Your task to perform on an android device: Go to display settings Image 0: 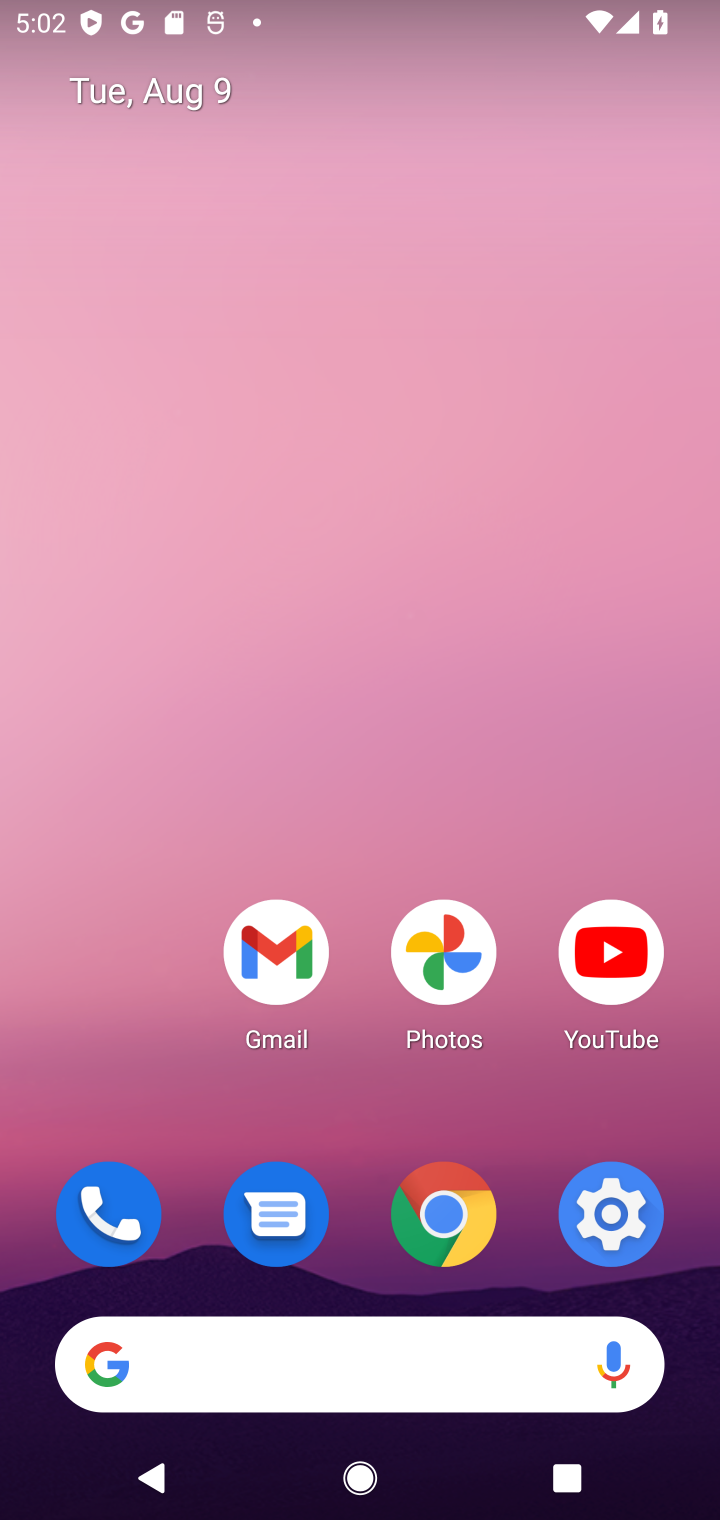
Step 0: drag from (478, 1318) to (375, 340)
Your task to perform on an android device: Go to display settings Image 1: 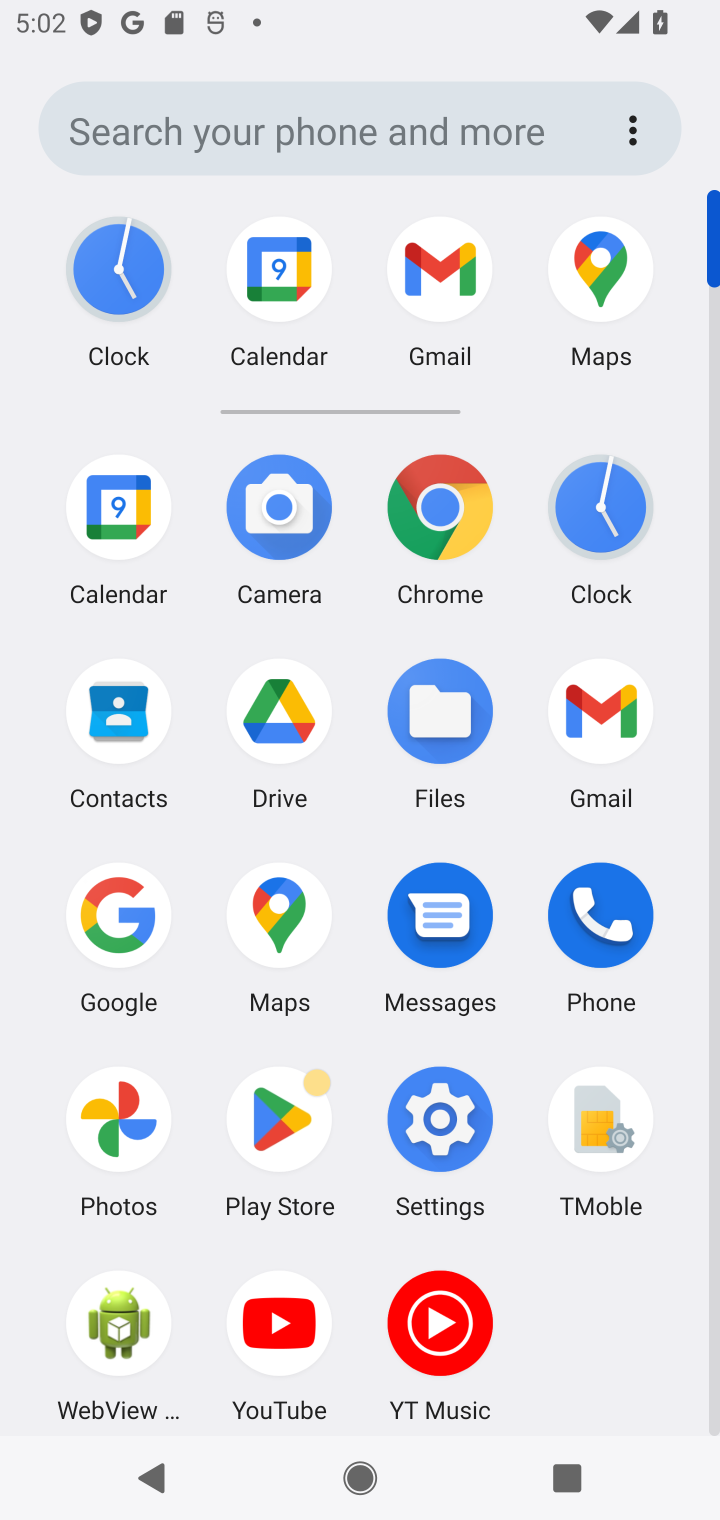
Step 1: click (432, 1098)
Your task to perform on an android device: Go to display settings Image 2: 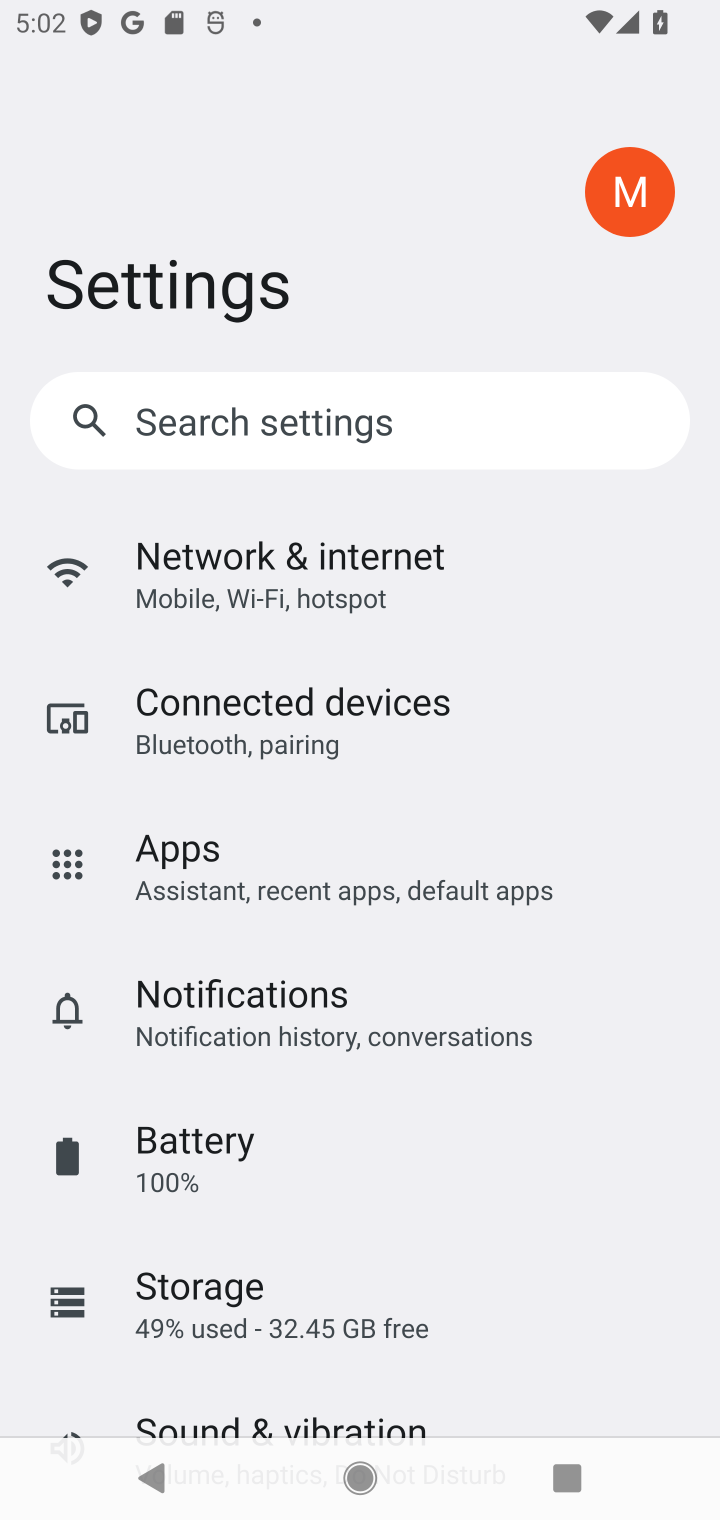
Step 2: click (267, 405)
Your task to perform on an android device: Go to display settings Image 3: 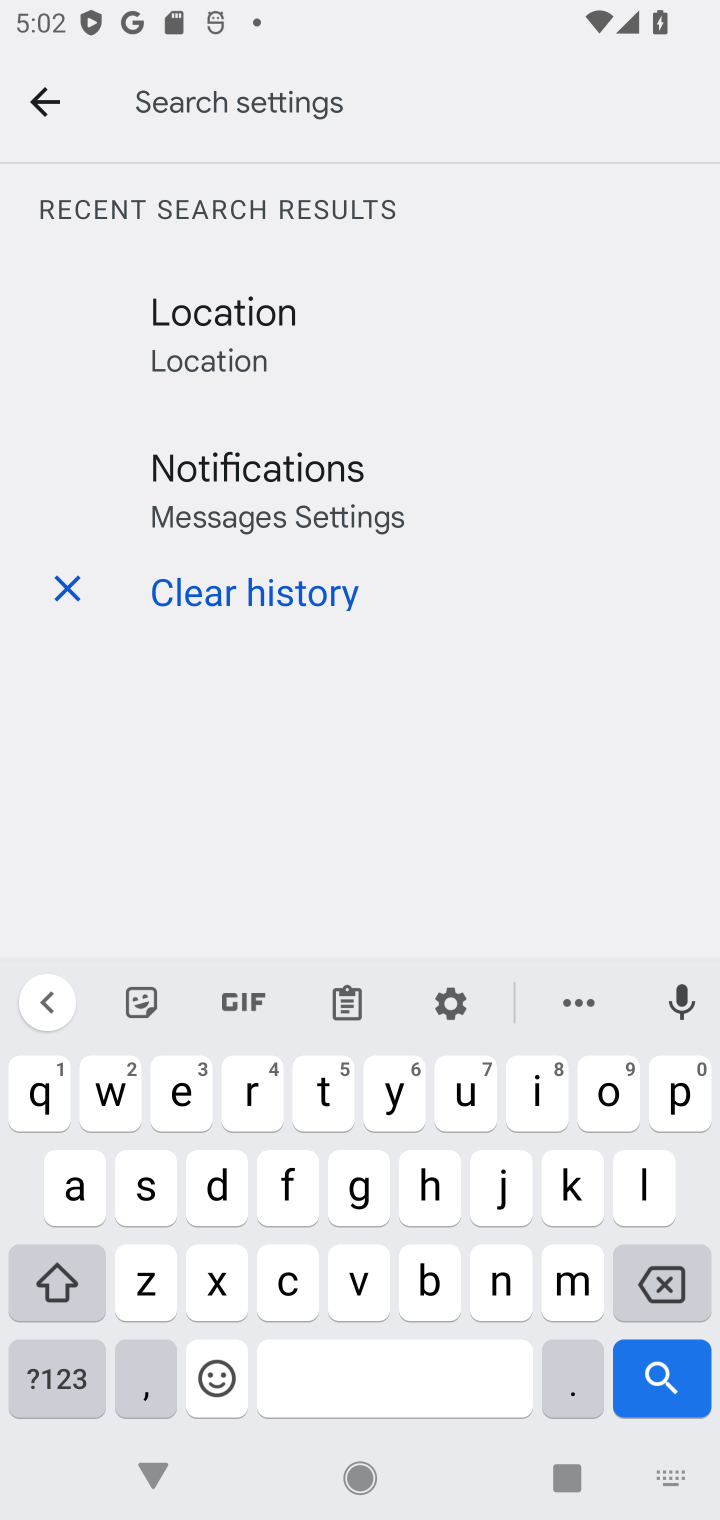
Step 3: click (206, 1183)
Your task to perform on an android device: Go to display settings Image 4: 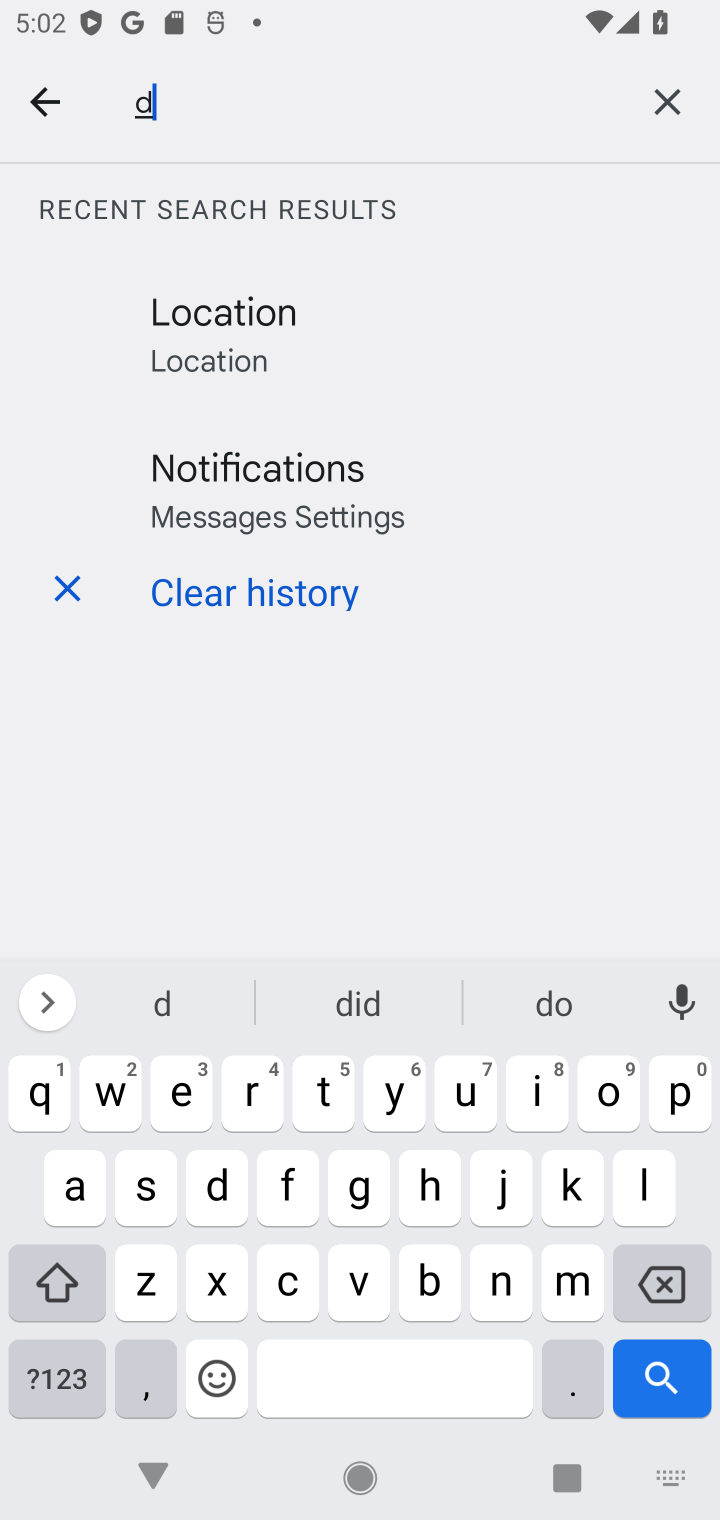
Step 4: click (542, 1092)
Your task to perform on an android device: Go to display settings Image 5: 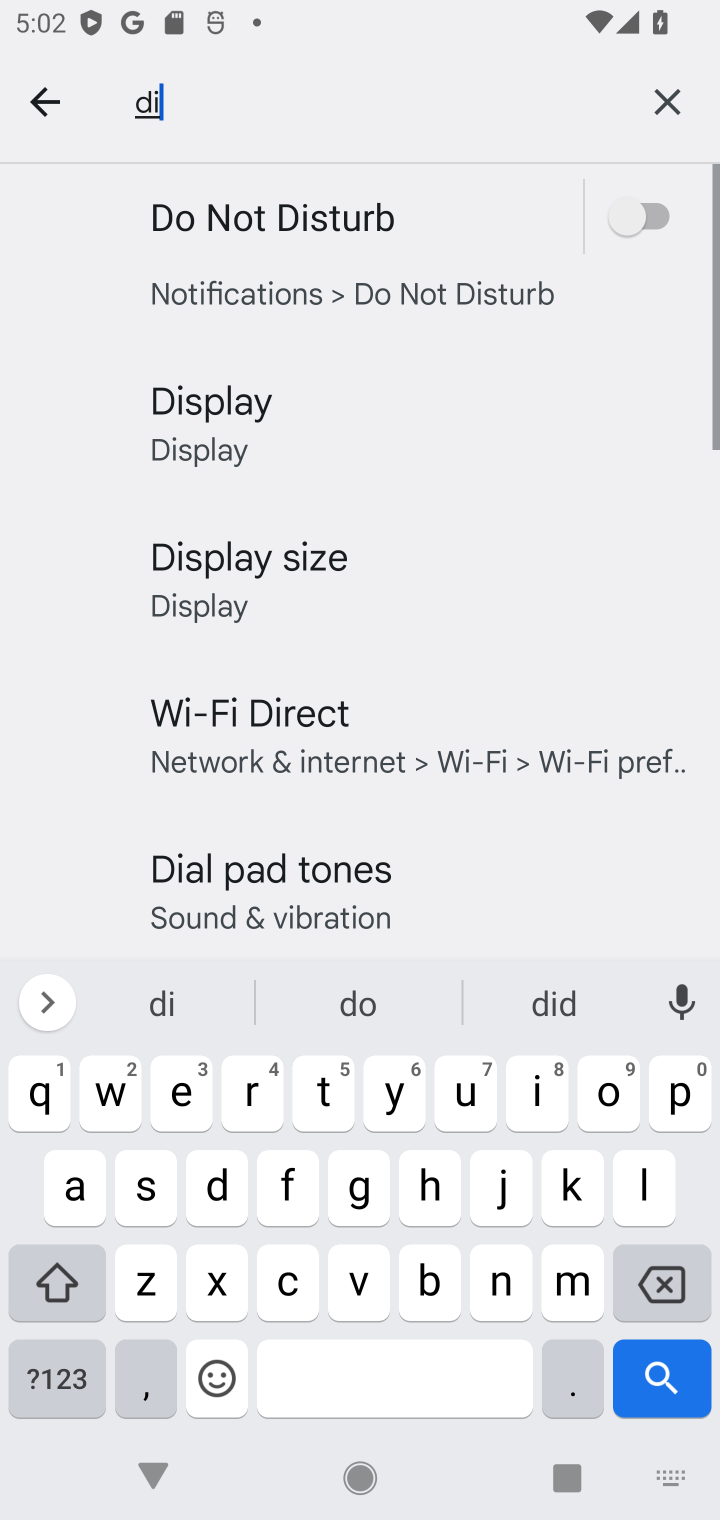
Step 5: click (145, 1198)
Your task to perform on an android device: Go to display settings Image 6: 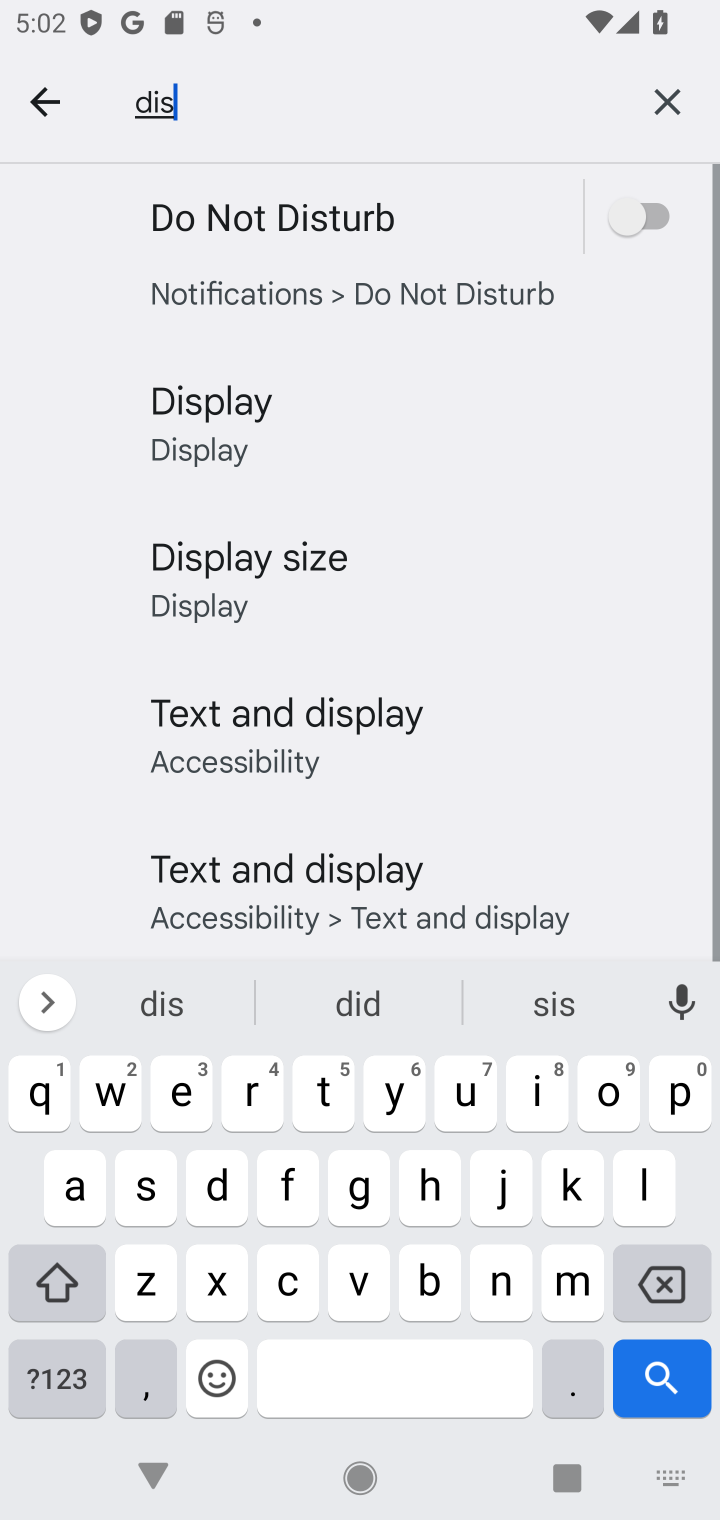
Step 6: click (265, 392)
Your task to perform on an android device: Go to display settings Image 7: 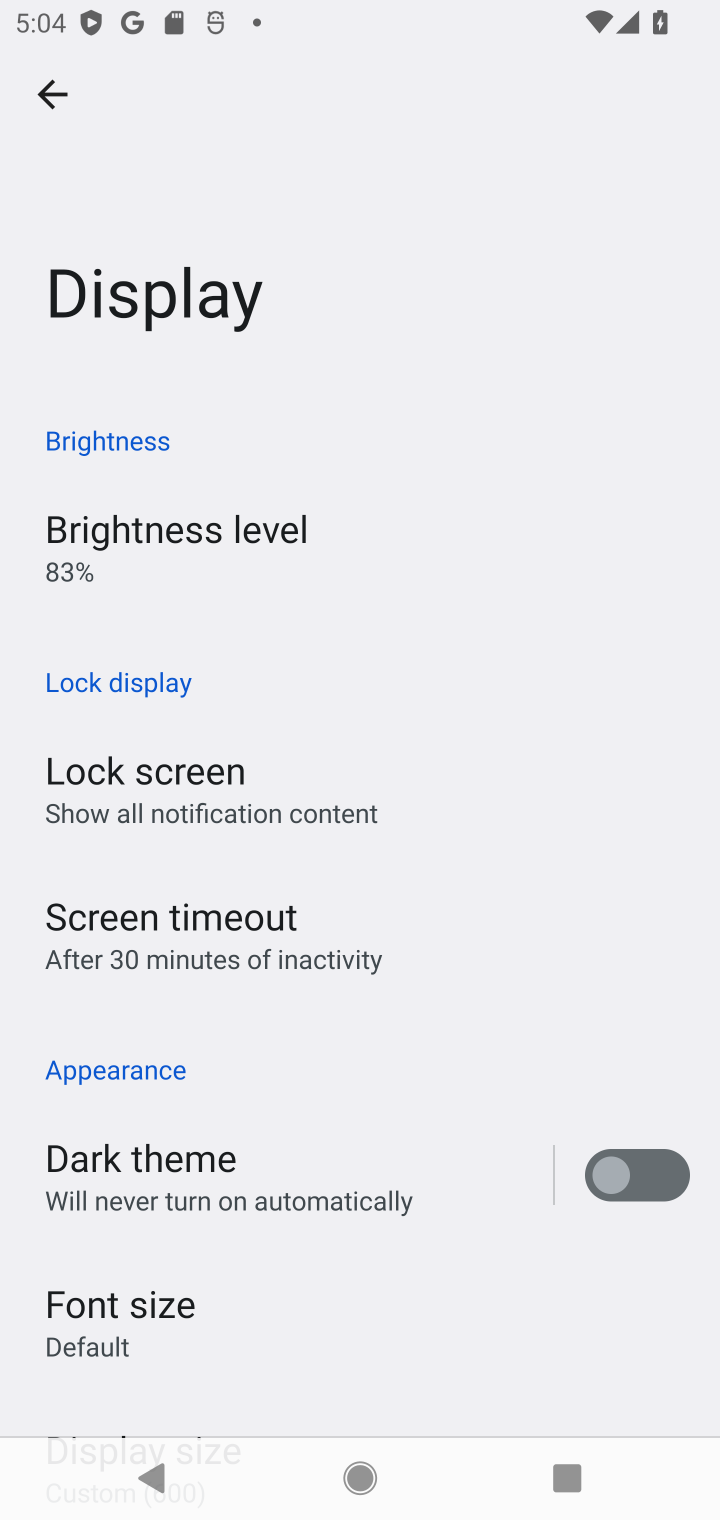
Step 7: task complete